Your task to perform on an android device: Go to CNN.com Image 0: 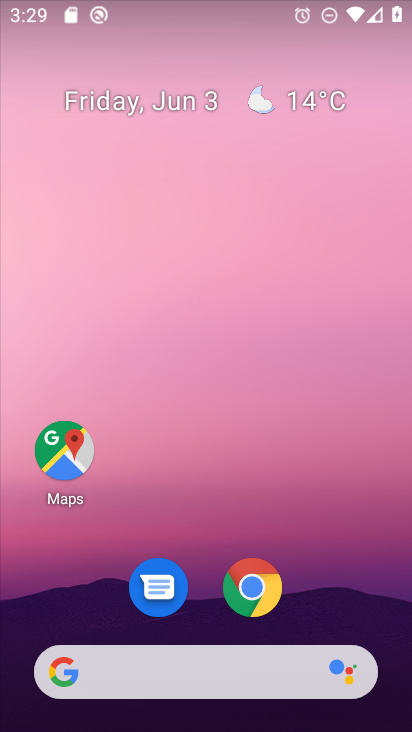
Step 0: click (256, 585)
Your task to perform on an android device: Go to CNN.com Image 1: 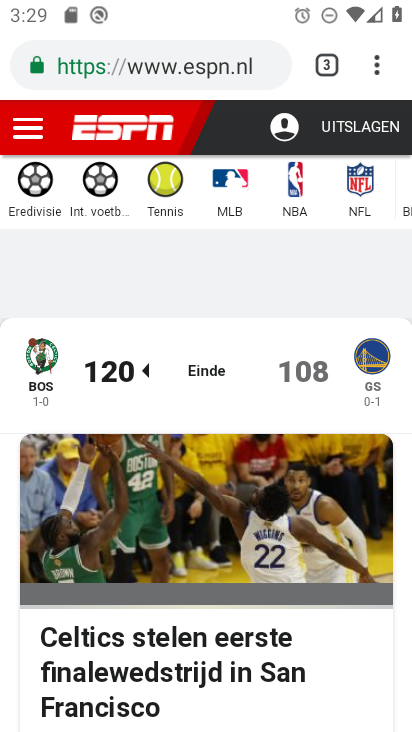
Step 1: click (379, 69)
Your task to perform on an android device: Go to CNN.com Image 2: 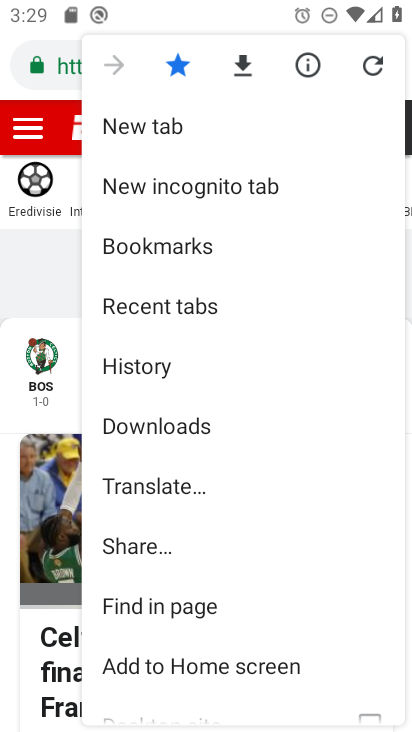
Step 2: click (177, 122)
Your task to perform on an android device: Go to CNN.com Image 3: 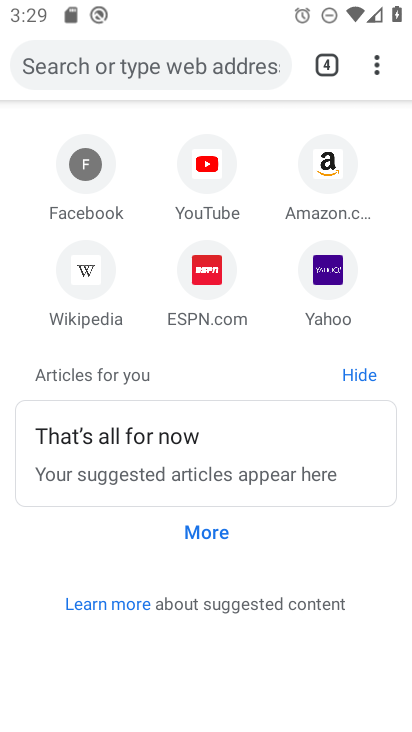
Step 3: click (187, 68)
Your task to perform on an android device: Go to CNN.com Image 4: 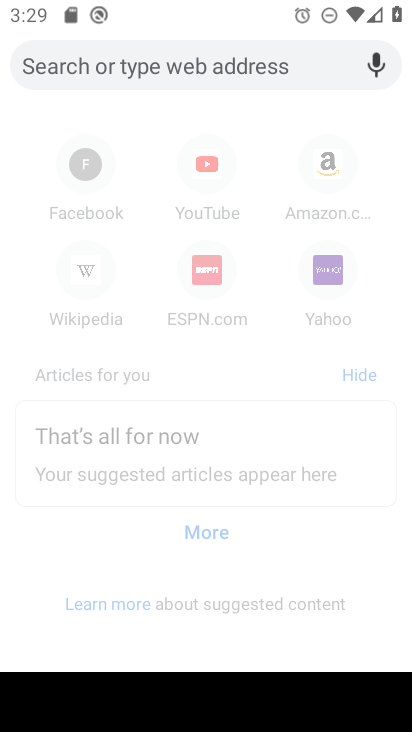
Step 4: type "CNN.com"
Your task to perform on an android device: Go to CNN.com Image 5: 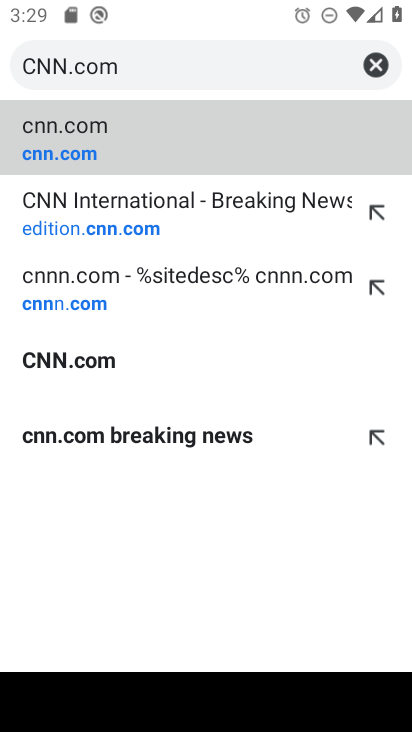
Step 5: click (71, 133)
Your task to perform on an android device: Go to CNN.com Image 6: 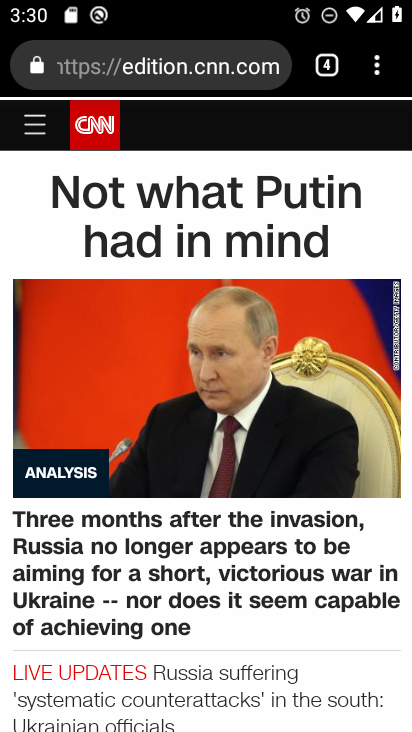
Step 6: task complete